Your task to perform on an android device: make emails show in primary in the gmail app Image 0: 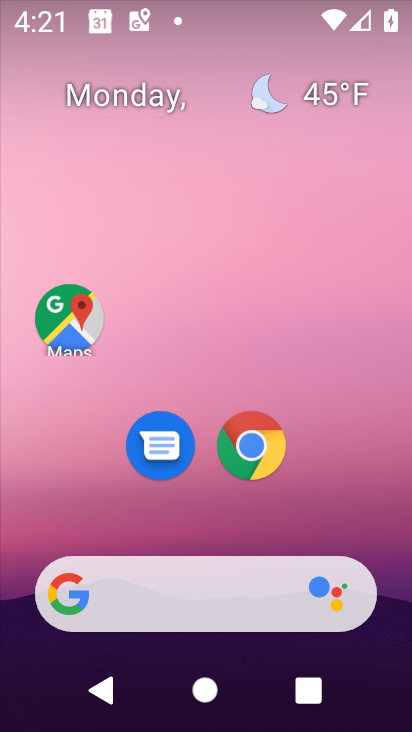
Step 0: drag from (315, 502) to (224, 40)
Your task to perform on an android device: make emails show in primary in the gmail app Image 1: 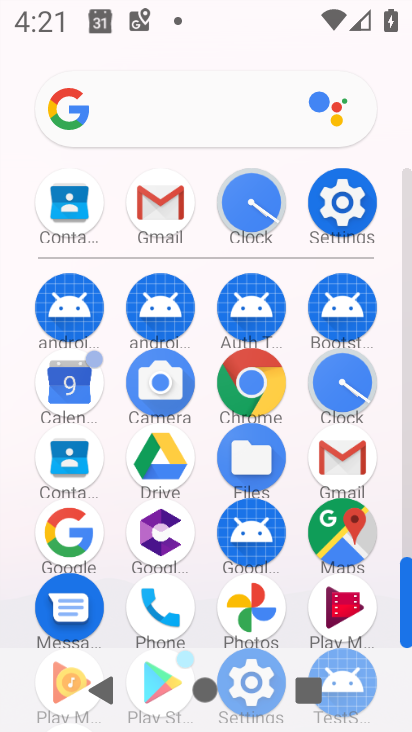
Step 1: click (321, 458)
Your task to perform on an android device: make emails show in primary in the gmail app Image 2: 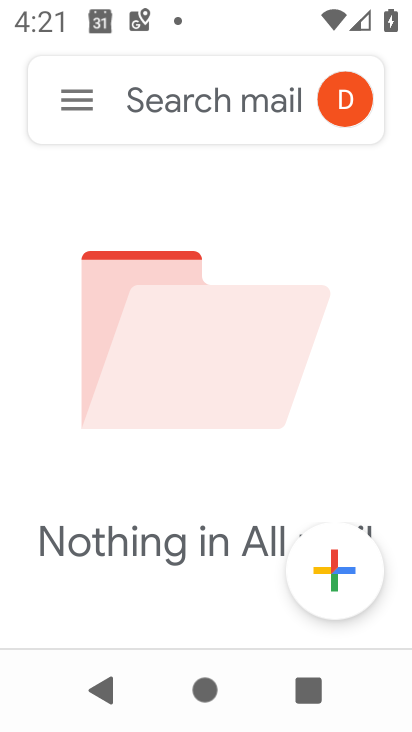
Step 2: click (85, 107)
Your task to perform on an android device: make emails show in primary in the gmail app Image 3: 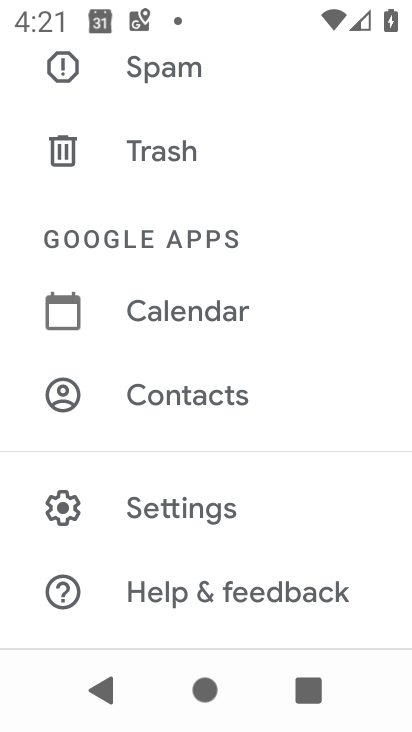
Step 3: drag from (190, 243) to (262, 56)
Your task to perform on an android device: make emails show in primary in the gmail app Image 4: 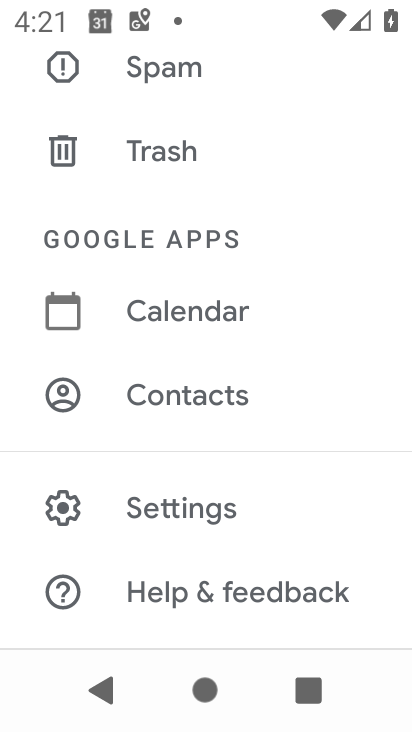
Step 4: click (221, 500)
Your task to perform on an android device: make emails show in primary in the gmail app Image 5: 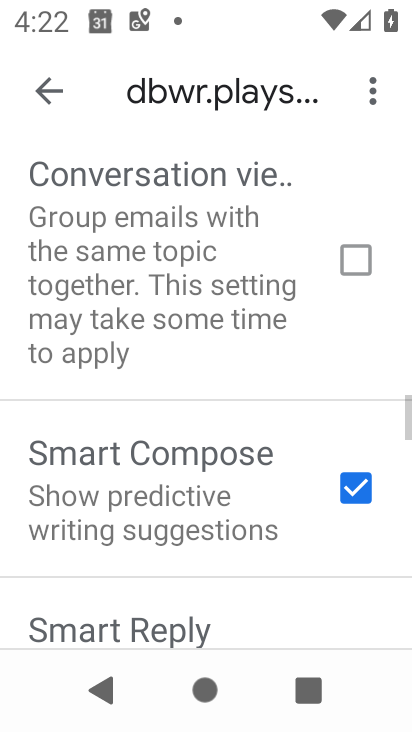
Step 5: drag from (182, 192) to (293, 563)
Your task to perform on an android device: make emails show in primary in the gmail app Image 6: 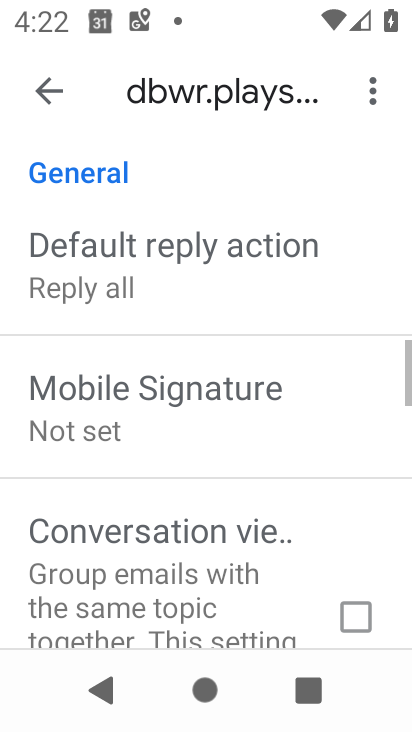
Step 6: drag from (213, 223) to (273, 492)
Your task to perform on an android device: make emails show in primary in the gmail app Image 7: 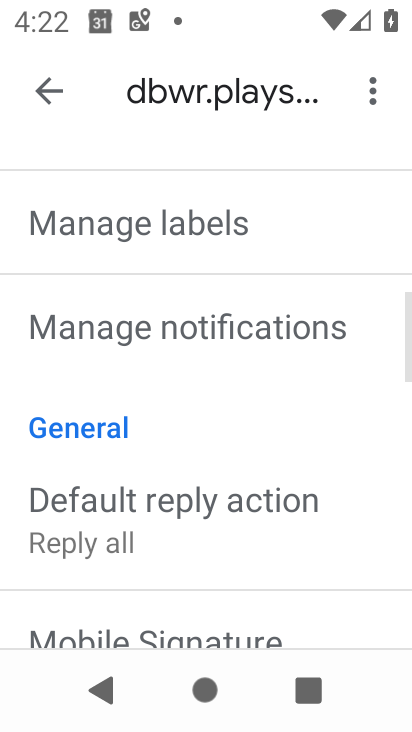
Step 7: drag from (237, 226) to (281, 520)
Your task to perform on an android device: make emails show in primary in the gmail app Image 8: 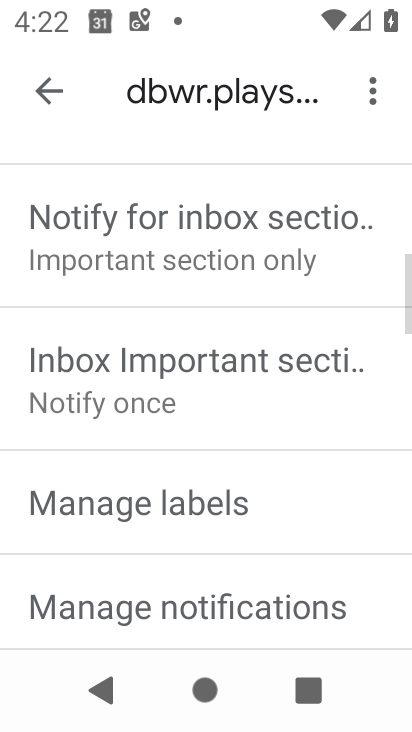
Step 8: drag from (231, 286) to (289, 614)
Your task to perform on an android device: make emails show in primary in the gmail app Image 9: 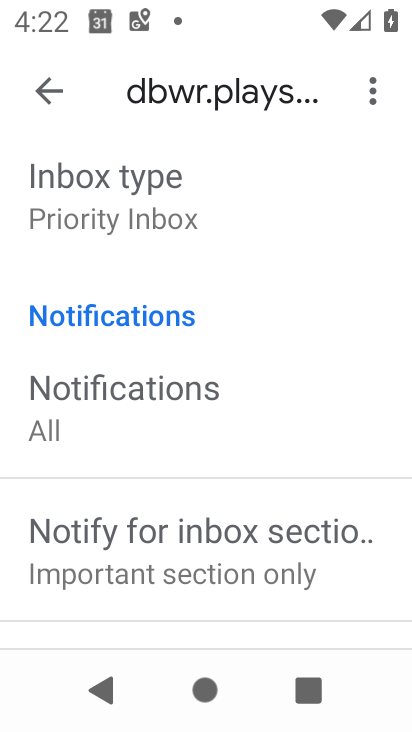
Step 9: drag from (260, 282) to (355, 613)
Your task to perform on an android device: make emails show in primary in the gmail app Image 10: 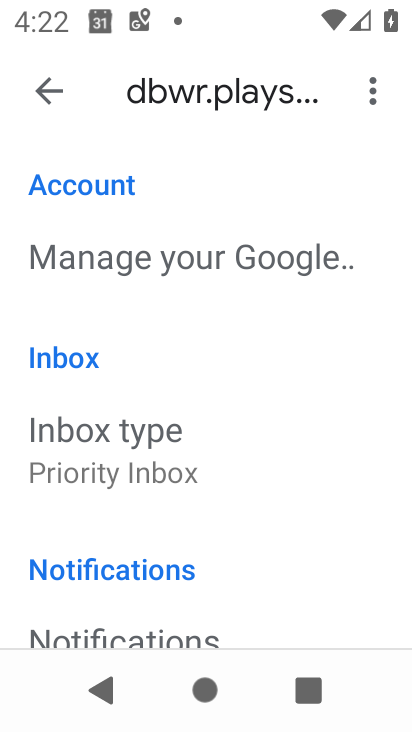
Step 10: click (196, 469)
Your task to perform on an android device: make emails show in primary in the gmail app Image 11: 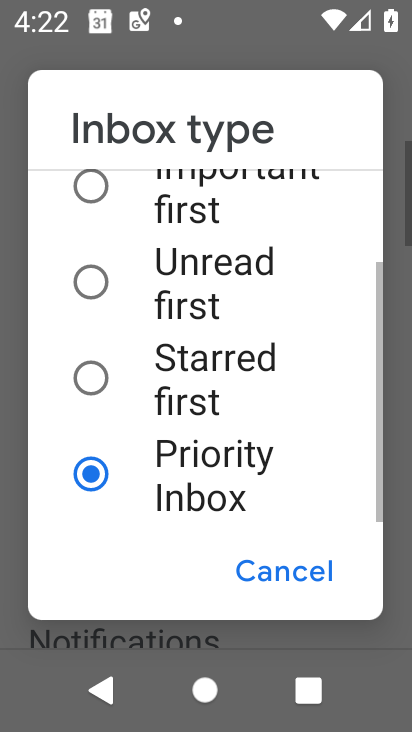
Step 11: drag from (210, 280) to (243, 529)
Your task to perform on an android device: make emails show in primary in the gmail app Image 12: 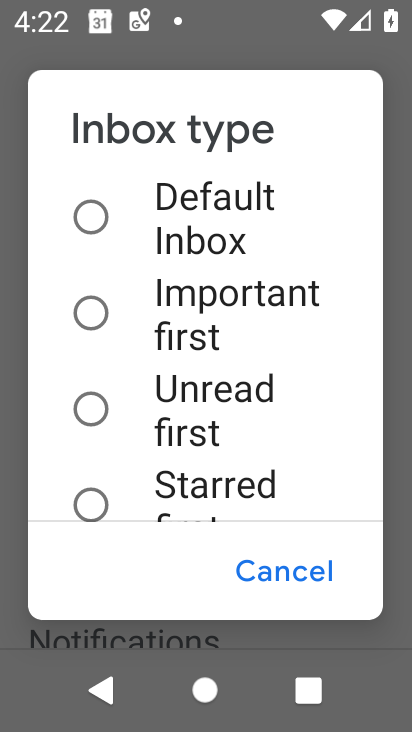
Step 12: click (221, 225)
Your task to perform on an android device: make emails show in primary in the gmail app Image 13: 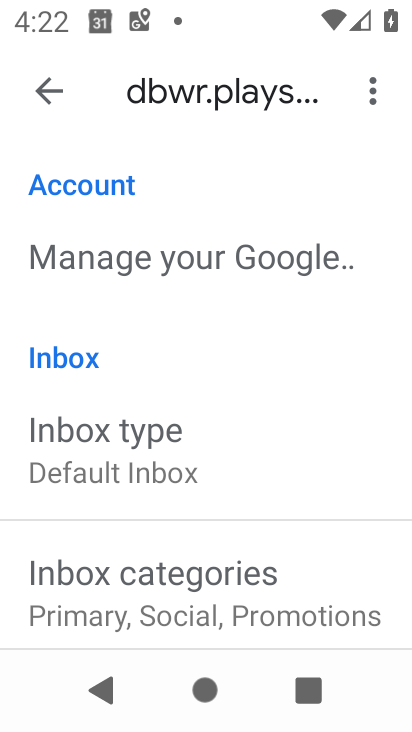
Step 13: task complete